Your task to perform on an android device: What's on the menu at Domino's? Image 0: 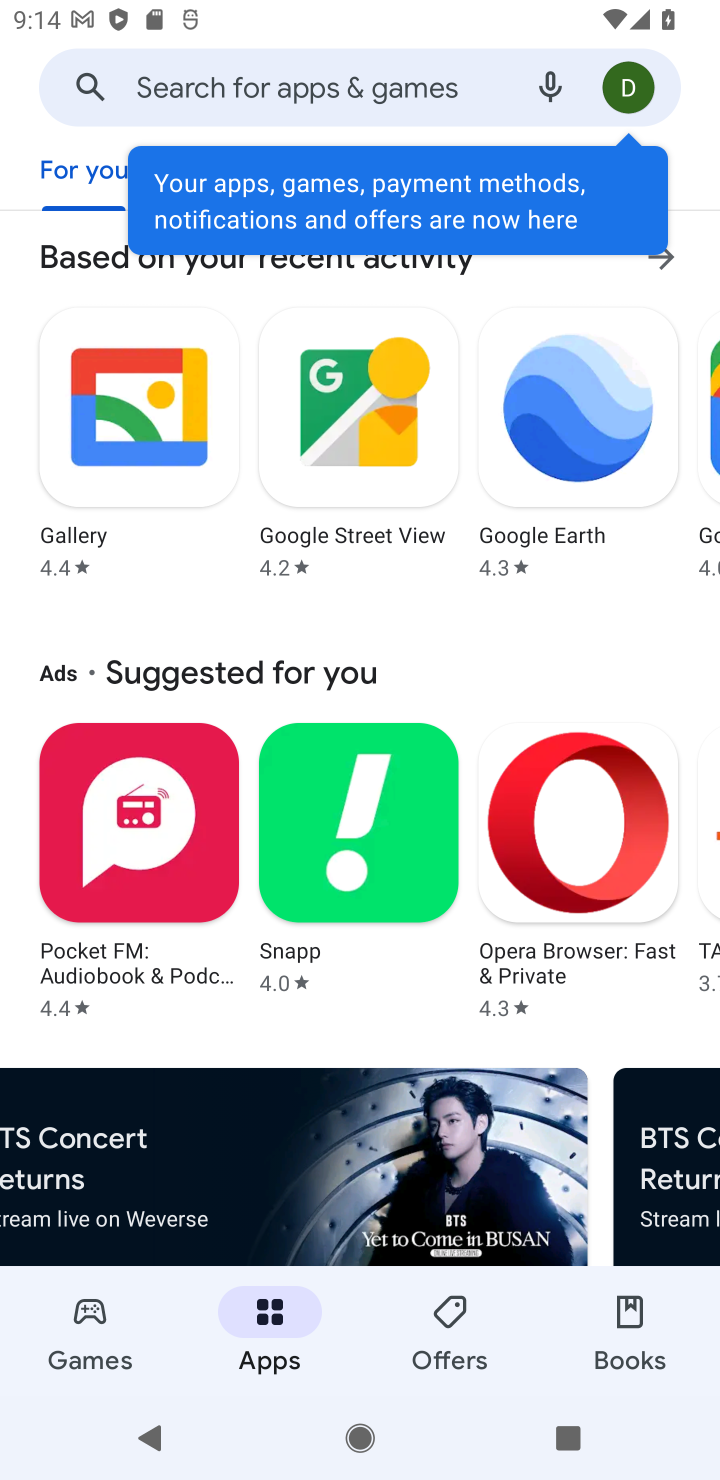
Step 0: click (256, 87)
Your task to perform on an android device: What's on the menu at Domino's? Image 1: 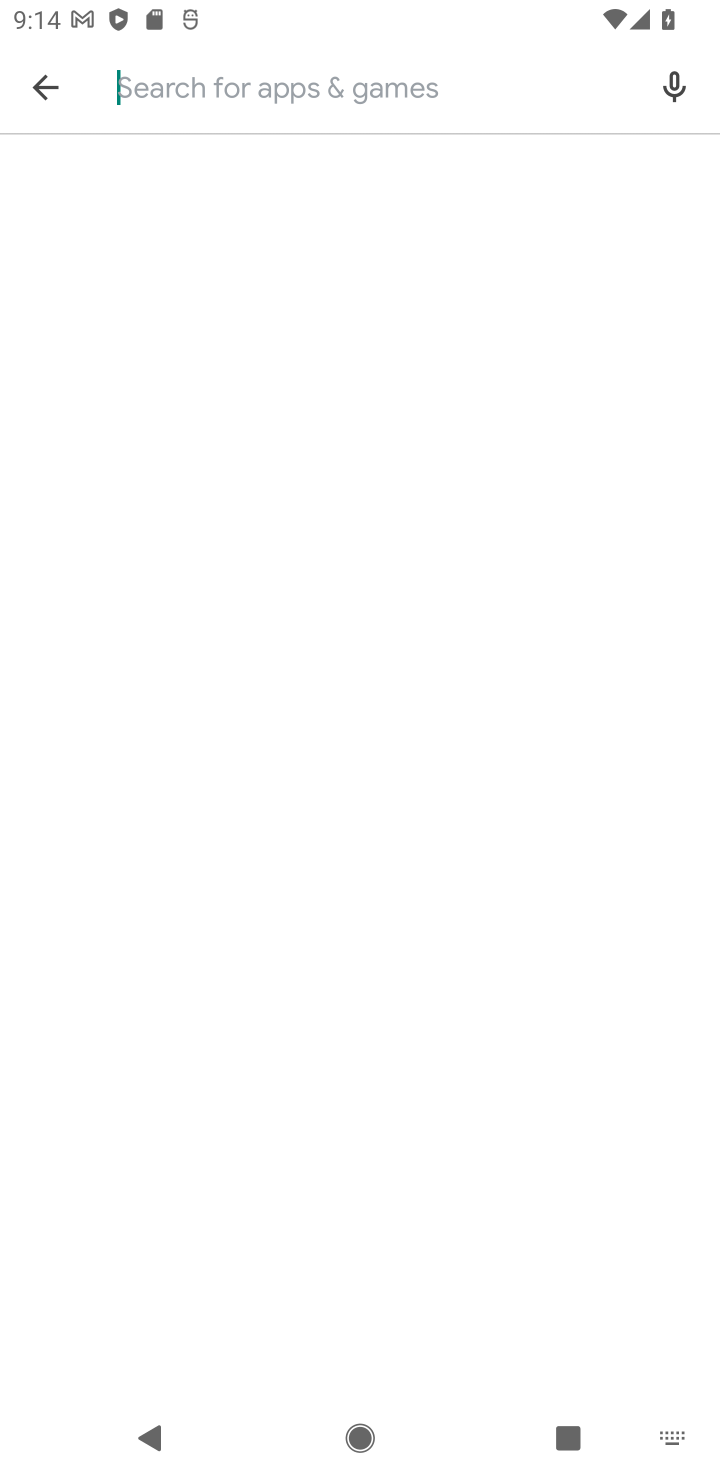
Step 1: type "What's on the menu at Domino's?"
Your task to perform on an android device: What's on the menu at Domino's? Image 2: 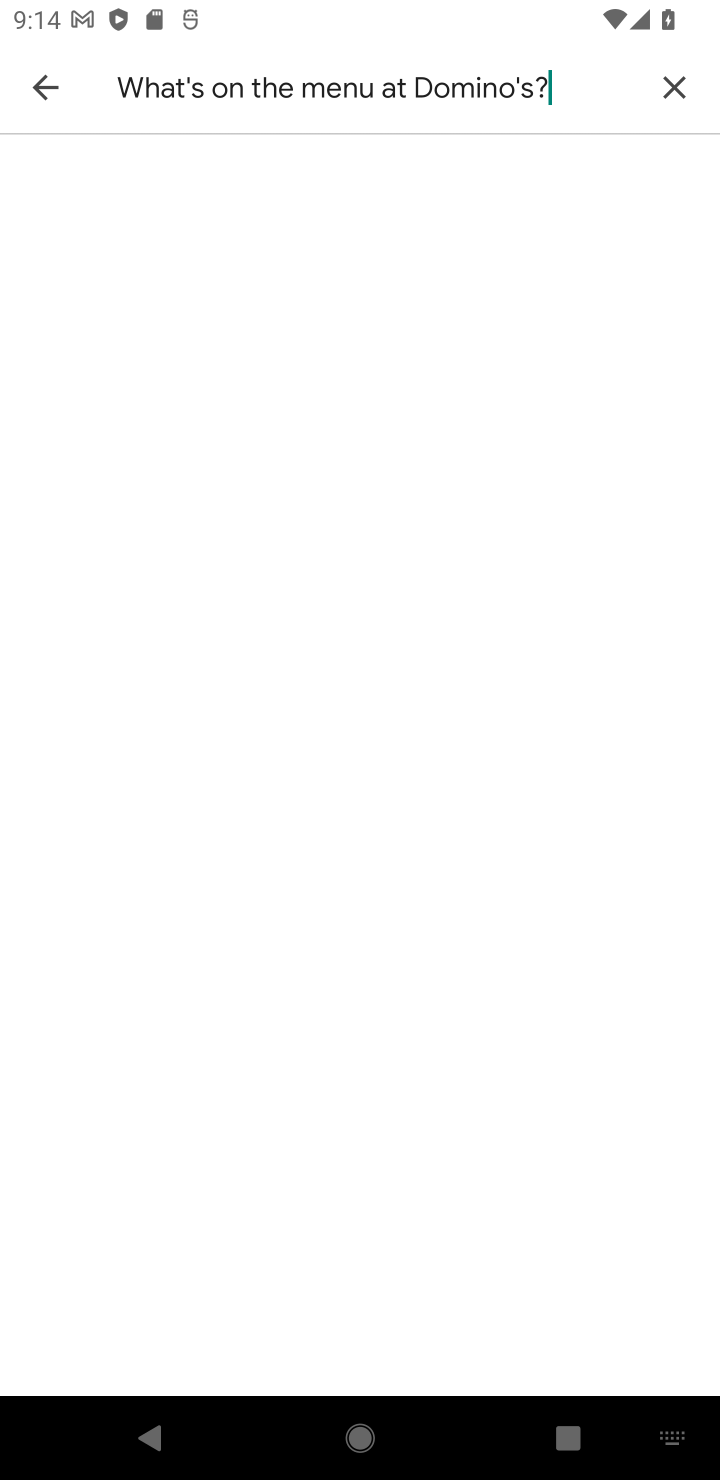
Step 2: task complete